Your task to perform on an android device: Show me popular videos on Youtube Image 0: 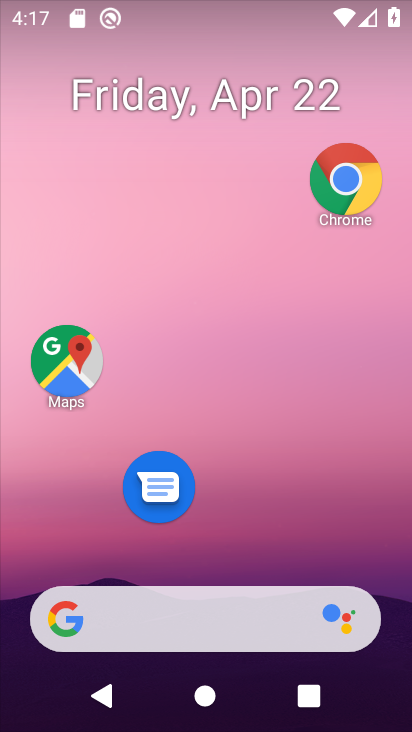
Step 0: drag from (267, 409) to (276, 15)
Your task to perform on an android device: Show me popular videos on Youtube Image 1: 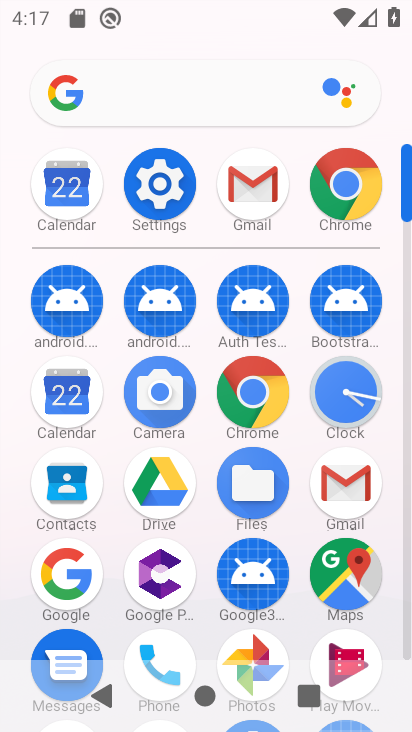
Step 1: drag from (276, 519) to (263, 152)
Your task to perform on an android device: Show me popular videos on Youtube Image 2: 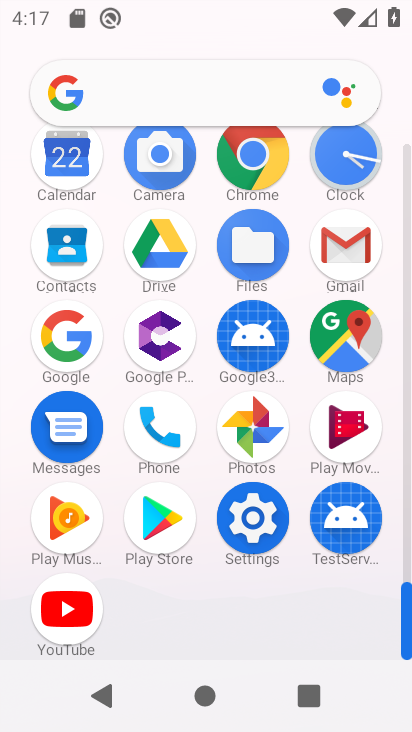
Step 2: click (80, 608)
Your task to perform on an android device: Show me popular videos on Youtube Image 3: 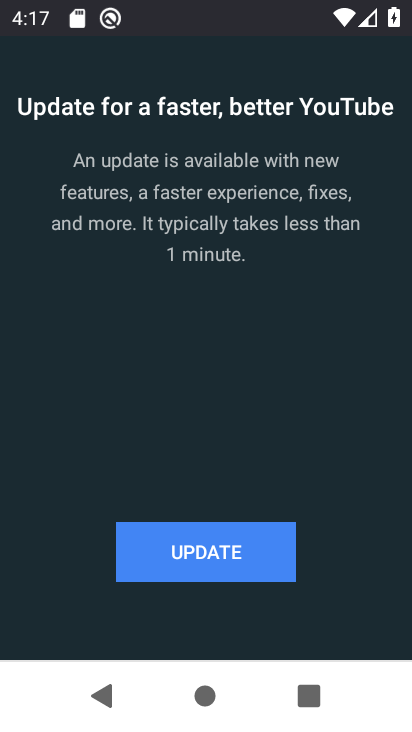
Step 3: click (242, 541)
Your task to perform on an android device: Show me popular videos on Youtube Image 4: 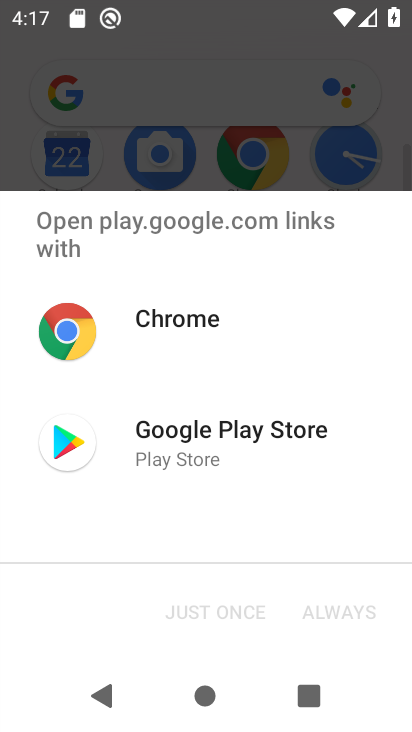
Step 4: click (166, 444)
Your task to perform on an android device: Show me popular videos on Youtube Image 5: 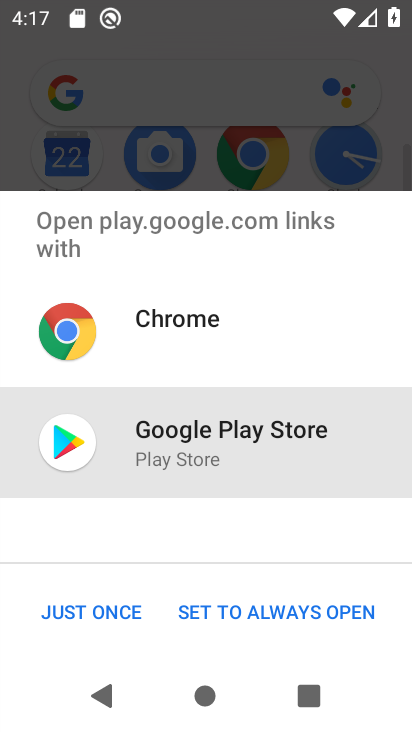
Step 5: click (33, 615)
Your task to perform on an android device: Show me popular videos on Youtube Image 6: 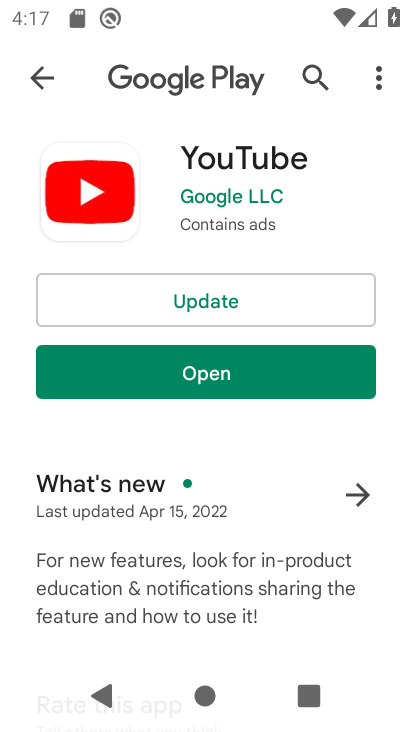
Step 6: click (189, 307)
Your task to perform on an android device: Show me popular videos on Youtube Image 7: 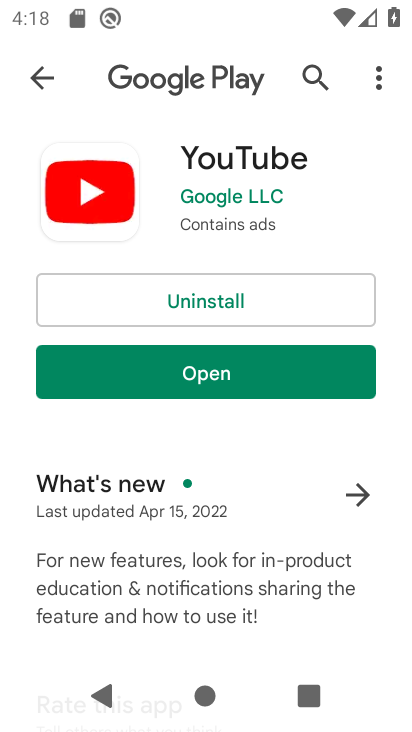
Step 7: click (227, 376)
Your task to perform on an android device: Show me popular videos on Youtube Image 8: 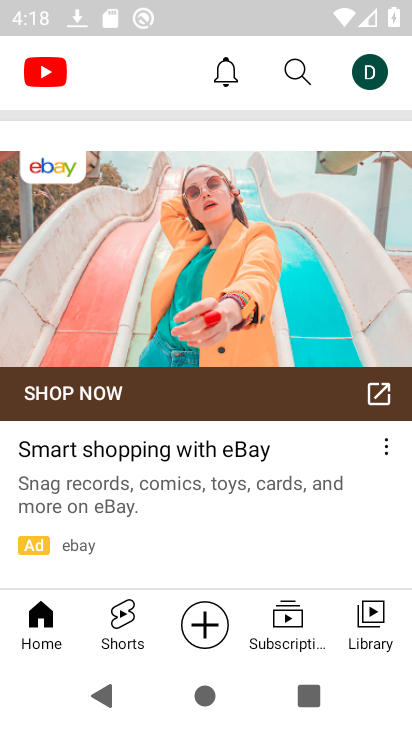
Step 8: click (57, 561)
Your task to perform on an android device: Show me popular videos on Youtube Image 9: 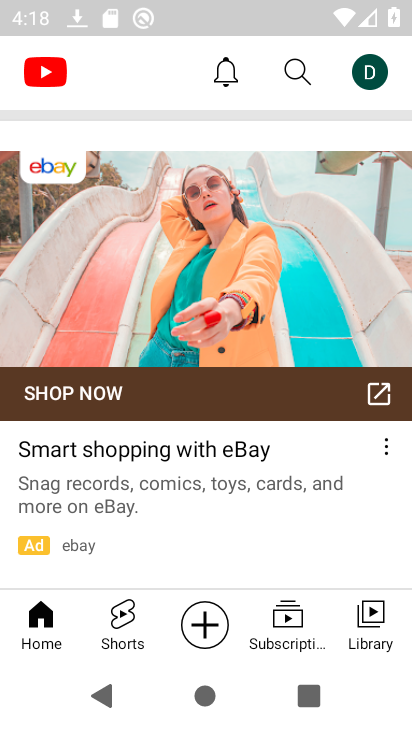
Step 9: drag from (120, 262) to (159, 496)
Your task to perform on an android device: Show me popular videos on Youtube Image 10: 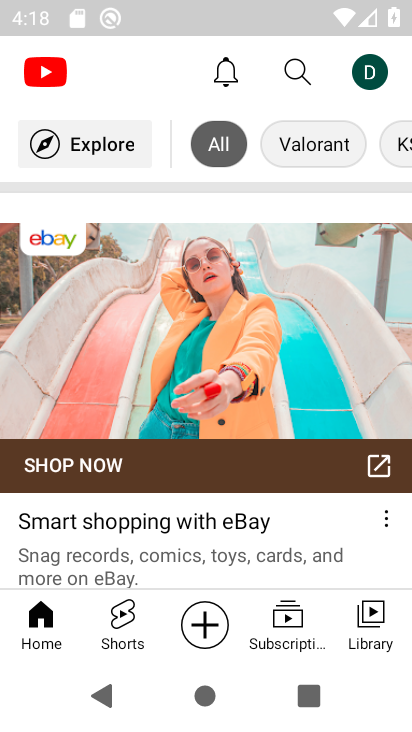
Step 10: click (78, 137)
Your task to perform on an android device: Show me popular videos on Youtube Image 11: 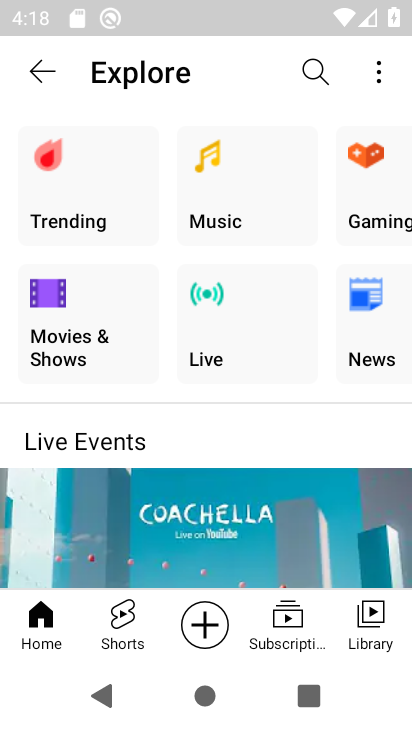
Step 11: click (75, 192)
Your task to perform on an android device: Show me popular videos on Youtube Image 12: 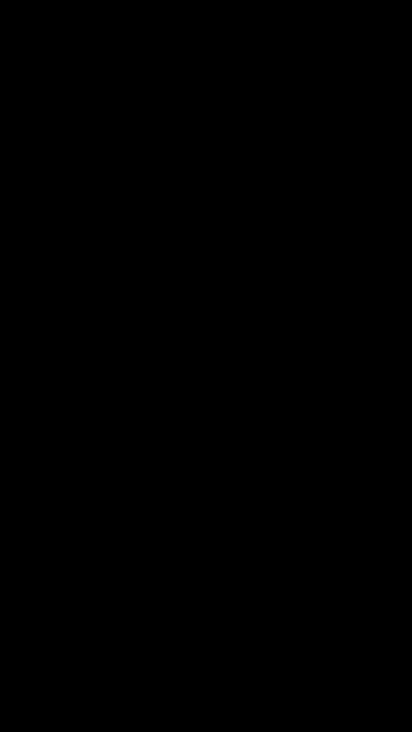
Step 12: task complete